Your task to perform on an android device: turn vacation reply on in the gmail app Image 0: 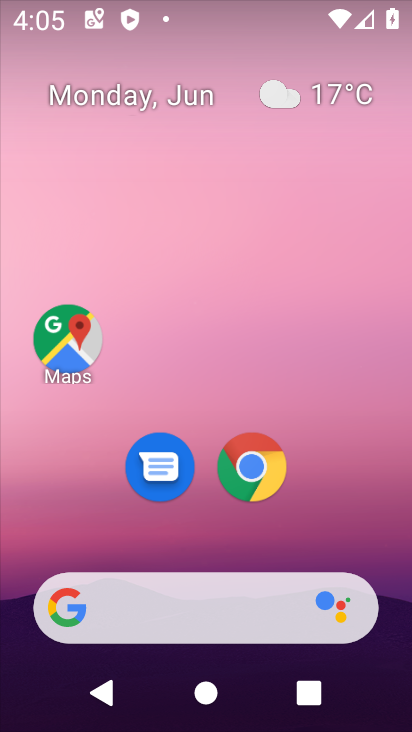
Step 0: drag from (199, 540) to (316, 0)
Your task to perform on an android device: turn vacation reply on in the gmail app Image 1: 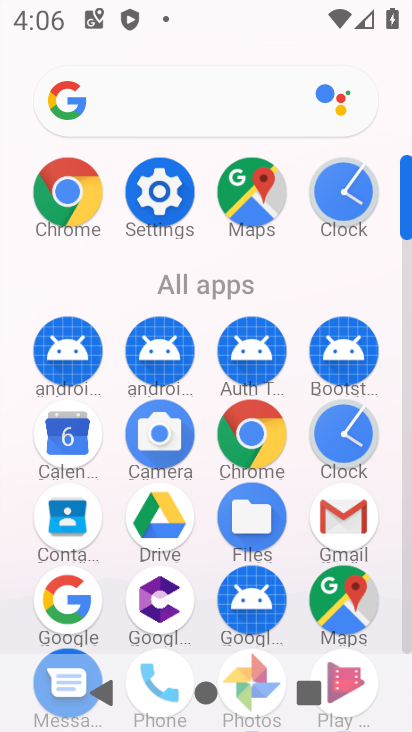
Step 1: click (341, 514)
Your task to perform on an android device: turn vacation reply on in the gmail app Image 2: 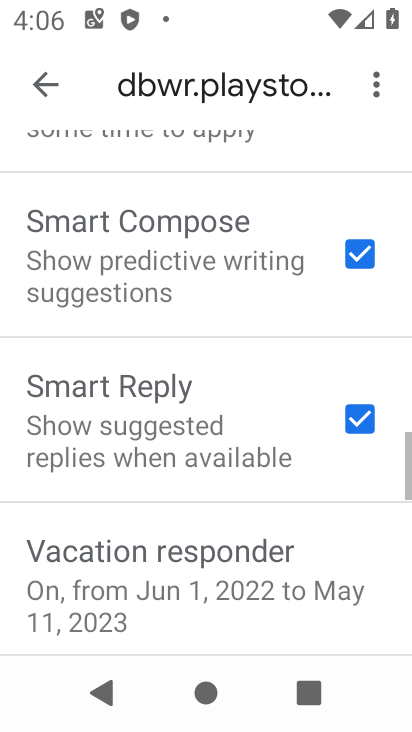
Step 2: click (39, 88)
Your task to perform on an android device: turn vacation reply on in the gmail app Image 3: 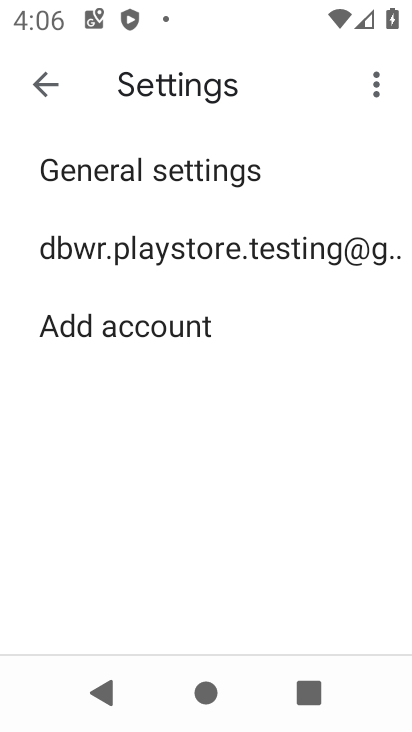
Step 3: click (155, 254)
Your task to perform on an android device: turn vacation reply on in the gmail app Image 4: 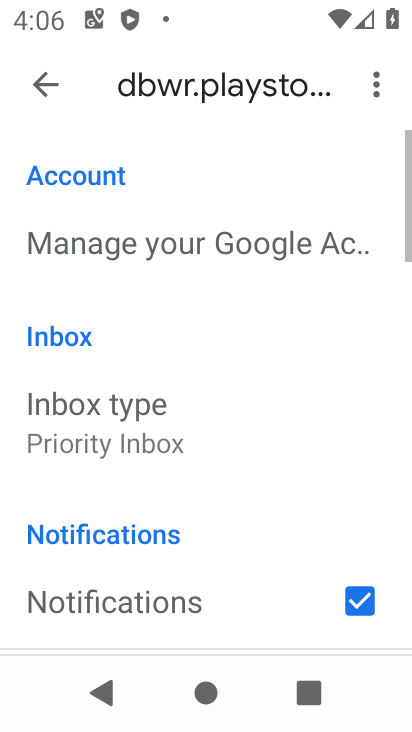
Step 4: drag from (221, 533) to (272, 131)
Your task to perform on an android device: turn vacation reply on in the gmail app Image 5: 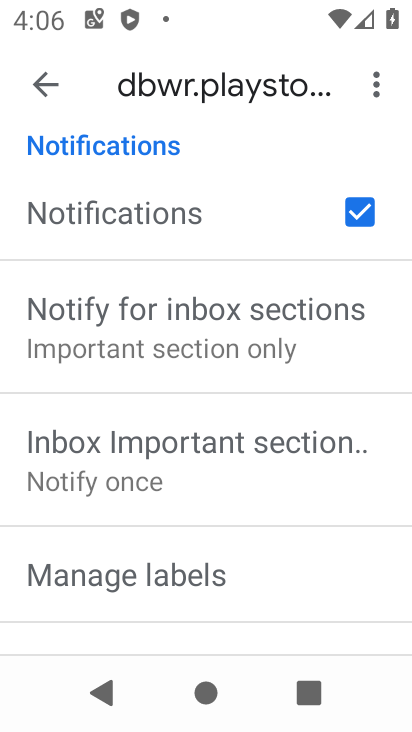
Step 5: drag from (211, 478) to (286, 7)
Your task to perform on an android device: turn vacation reply on in the gmail app Image 6: 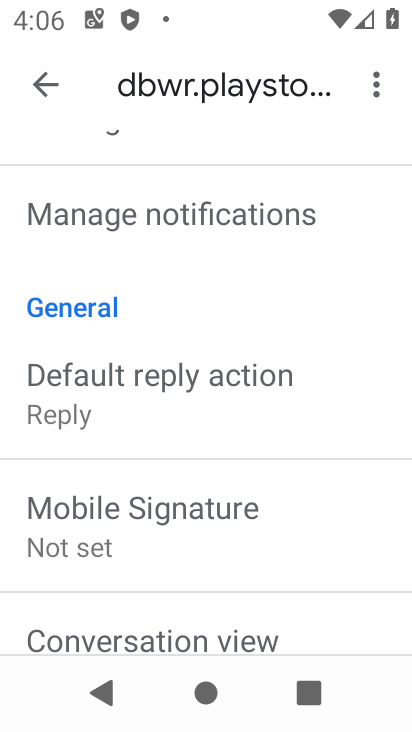
Step 6: drag from (221, 388) to (278, 79)
Your task to perform on an android device: turn vacation reply on in the gmail app Image 7: 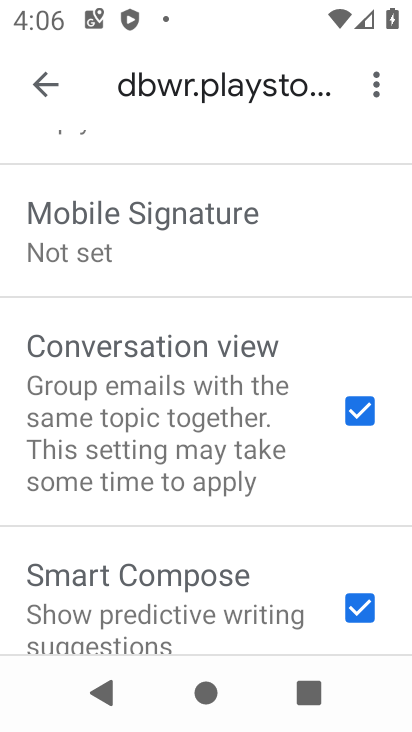
Step 7: drag from (173, 630) to (276, 193)
Your task to perform on an android device: turn vacation reply on in the gmail app Image 8: 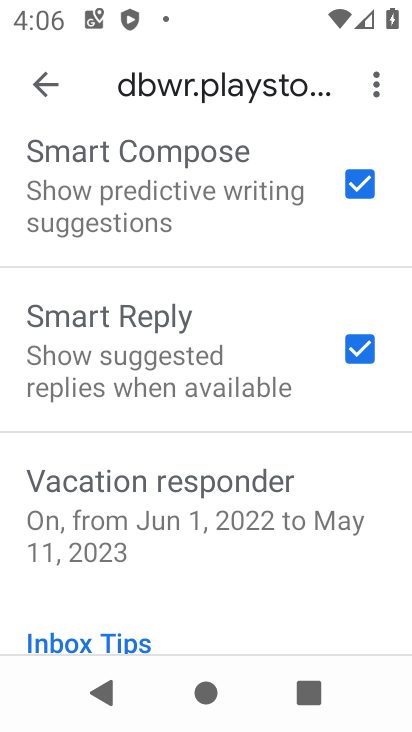
Step 8: click (225, 518)
Your task to perform on an android device: turn vacation reply on in the gmail app Image 9: 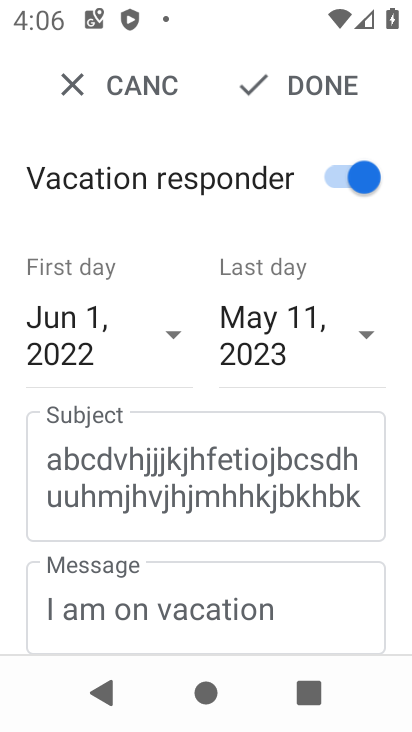
Step 9: task complete